Your task to perform on an android device: View the shopping cart on bestbuy. Search for lenovo thinkpad on bestbuy, select the first entry, and add it to the cart. Image 0: 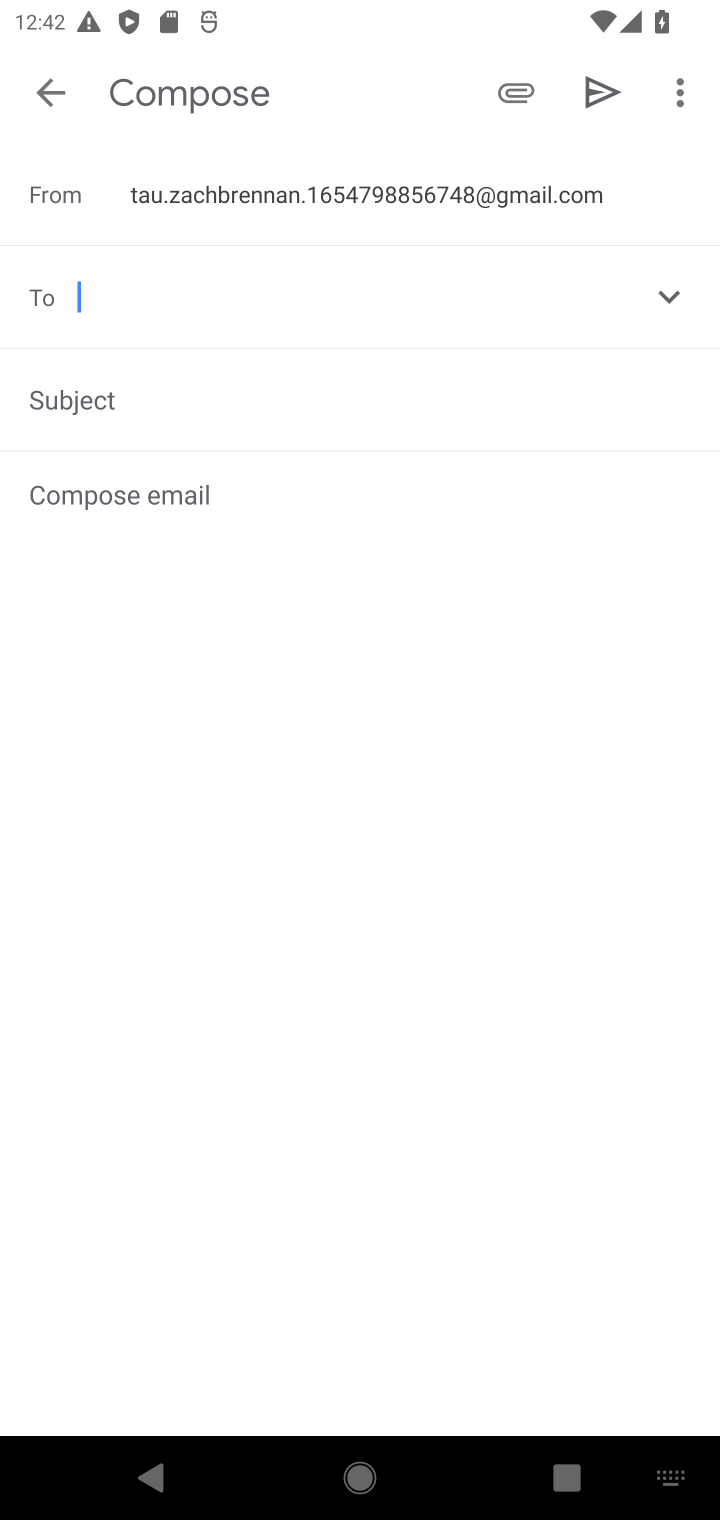
Step 0: press home button
Your task to perform on an android device: View the shopping cart on bestbuy. Search for lenovo thinkpad on bestbuy, select the first entry, and add it to the cart. Image 1: 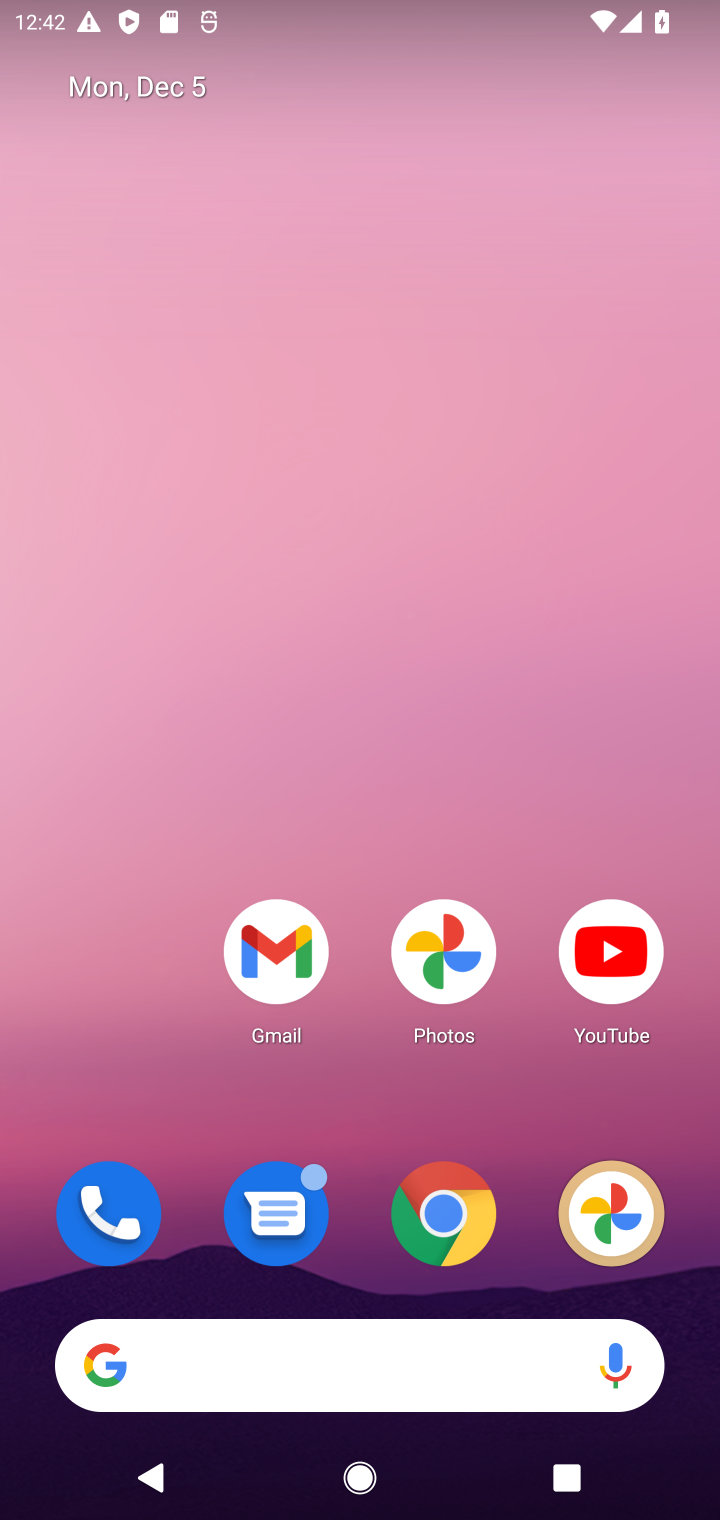
Step 1: click (445, 1209)
Your task to perform on an android device: View the shopping cart on bestbuy. Search for lenovo thinkpad on bestbuy, select the first entry, and add it to the cart. Image 2: 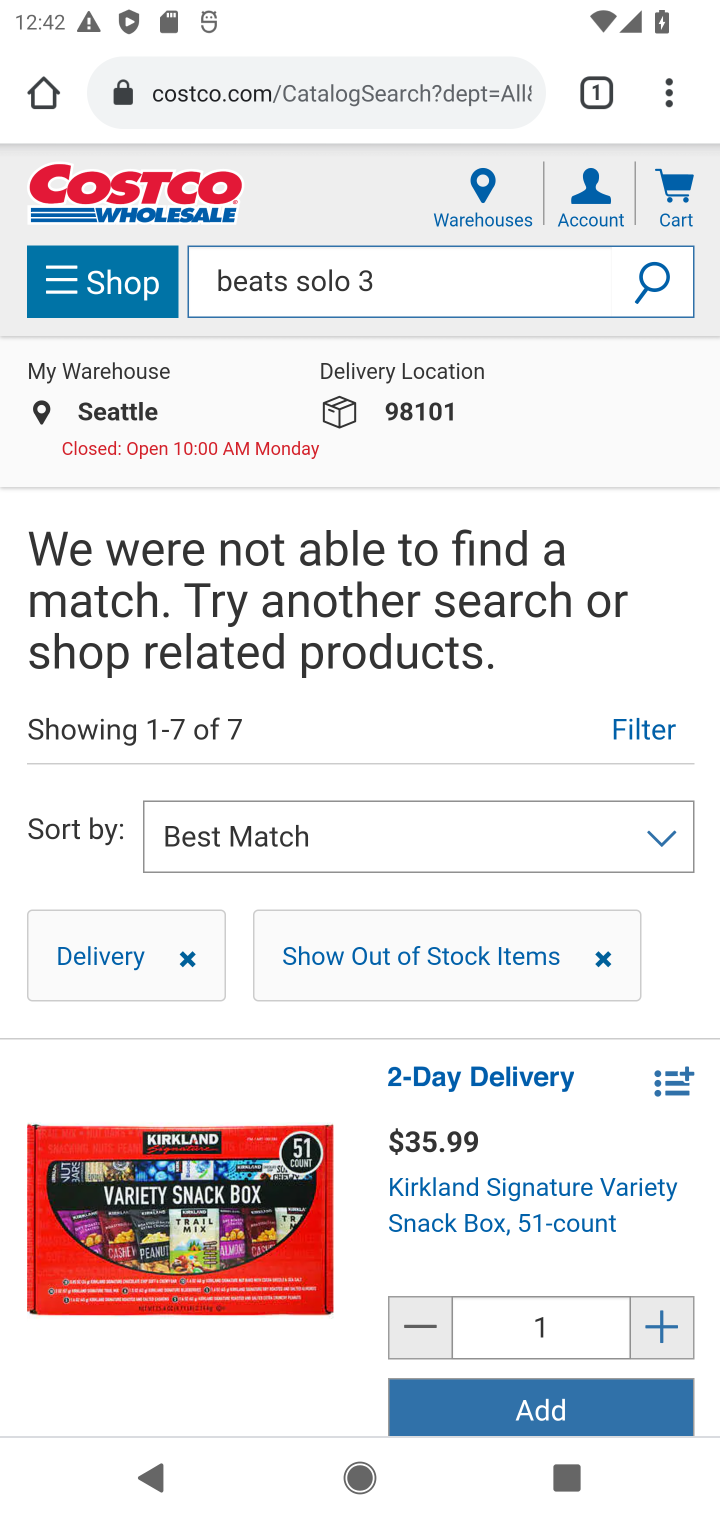
Step 2: click (307, 84)
Your task to perform on an android device: View the shopping cart on bestbuy. Search for lenovo thinkpad on bestbuy, select the first entry, and add it to the cart. Image 3: 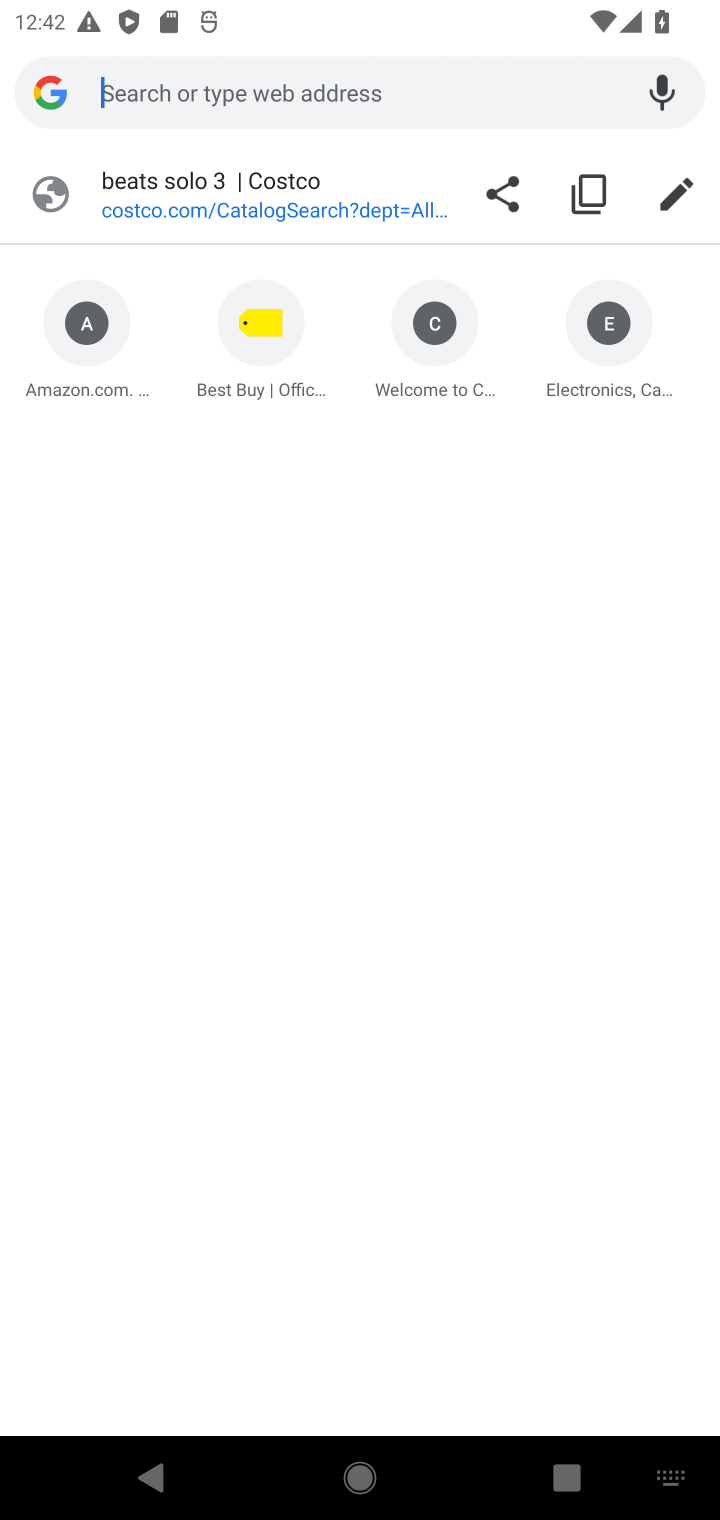
Step 3: click (260, 333)
Your task to perform on an android device: View the shopping cart on bestbuy. Search for lenovo thinkpad on bestbuy, select the first entry, and add it to the cart. Image 4: 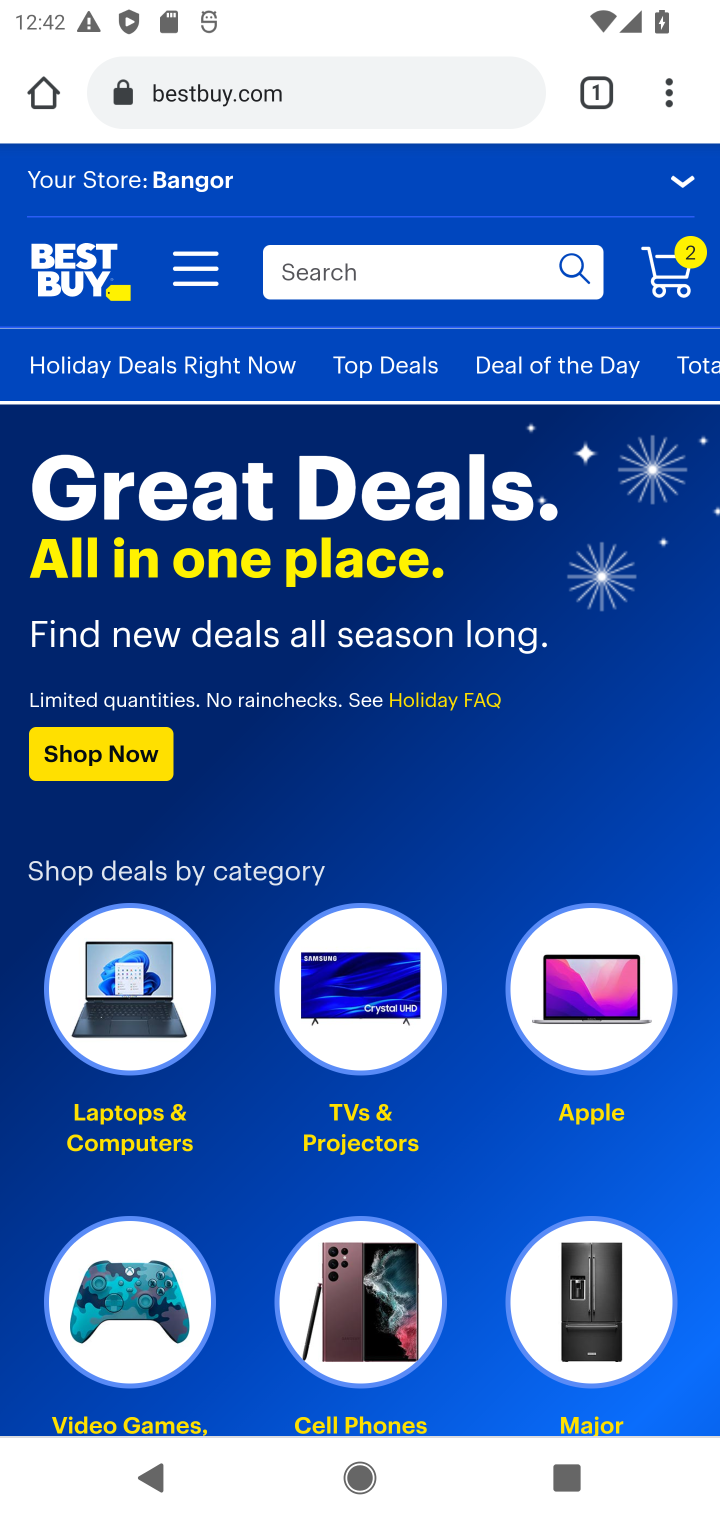
Step 4: click (671, 275)
Your task to perform on an android device: View the shopping cart on bestbuy. Search for lenovo thinkpad on bestbuy, select the first entry, and add it to the cart. Image 5: 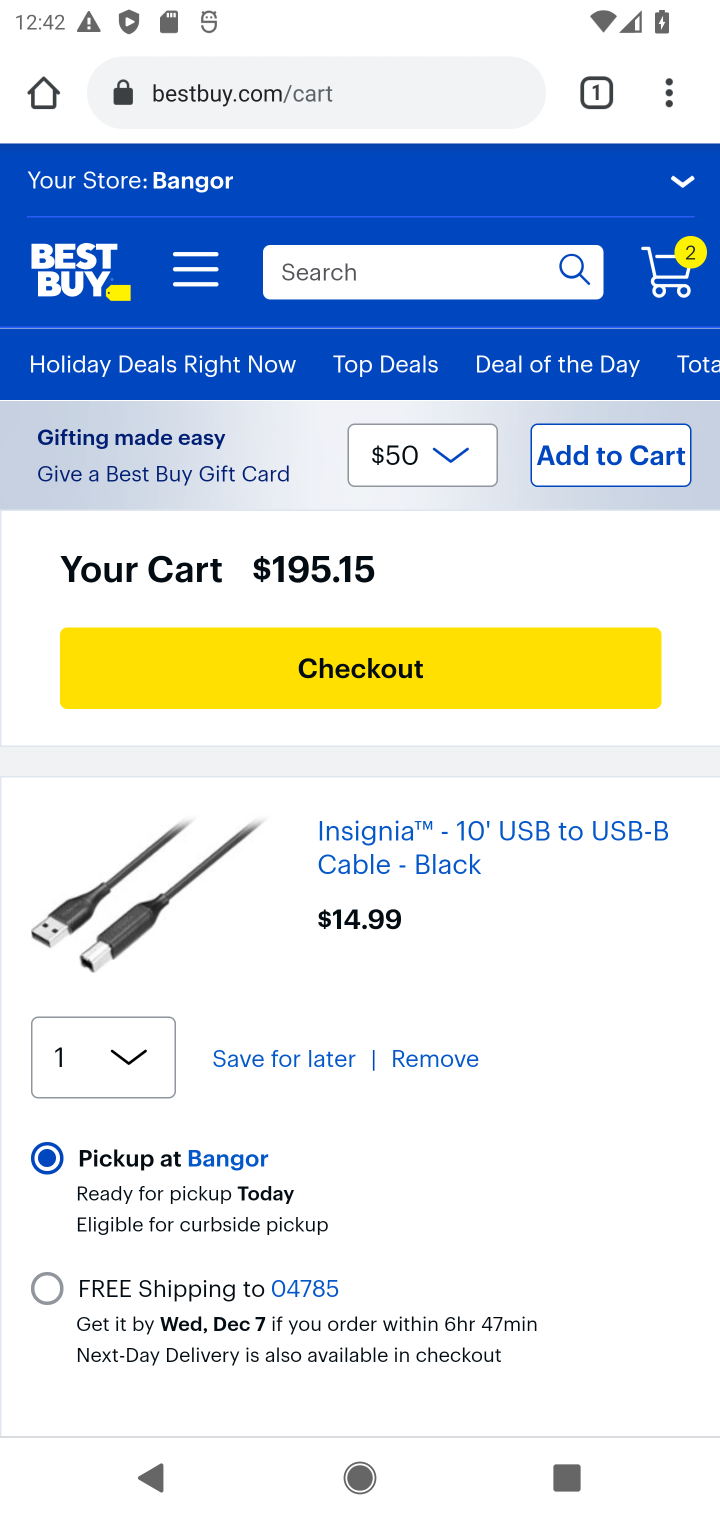
Step 5: drag from (382, 1258) to (394, 910)
Your task to perform on an android device: View the shopping cart on bestbuy. Search for lenovo thinkpad on bestbuy, select the first entry, and add it to the cart. Image 6: 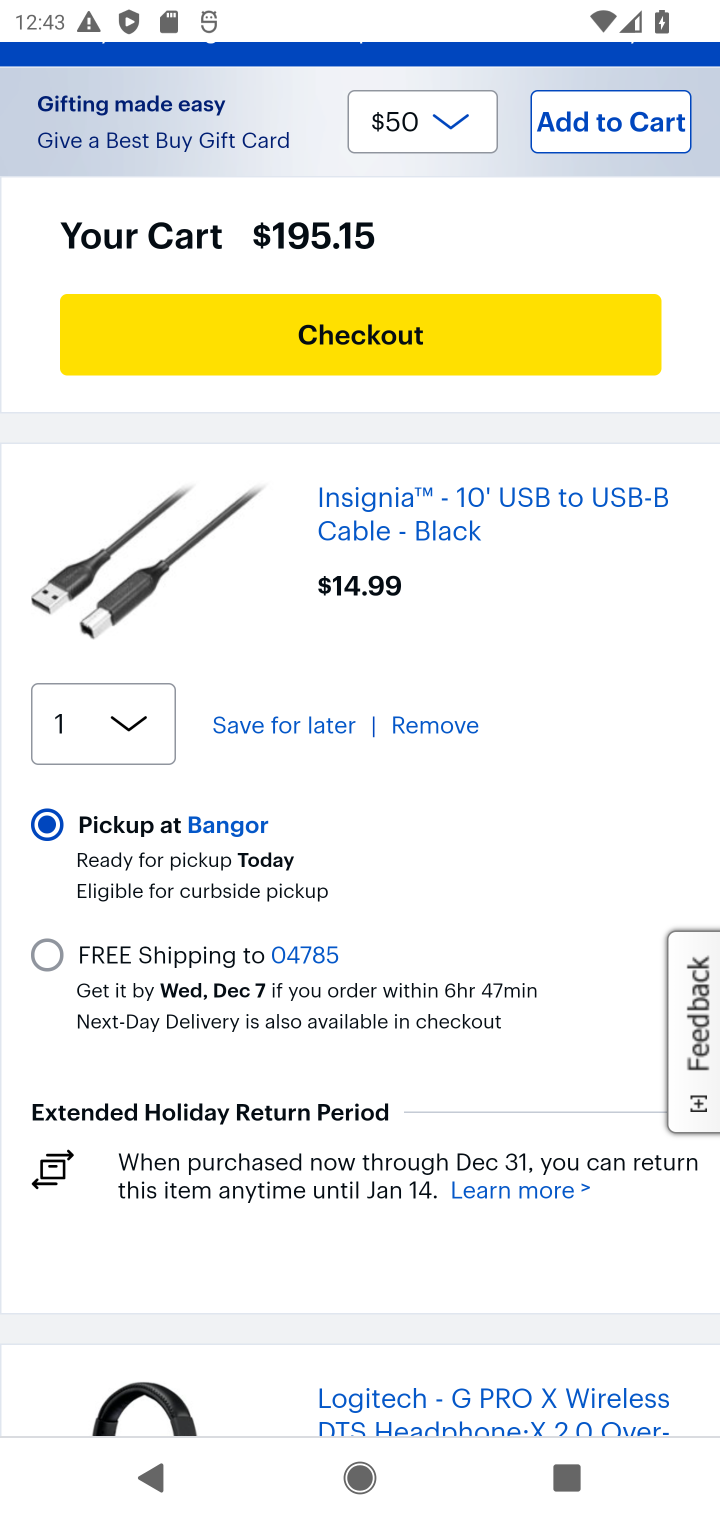
Step 6: drag from (556, 288) to (528, 679)
Your task to perform on an android device: View the shopping cart on bestbuy. Search for lenovo thinkpad on bestbuy, select the first entry, and add it to the cart. Image 7: 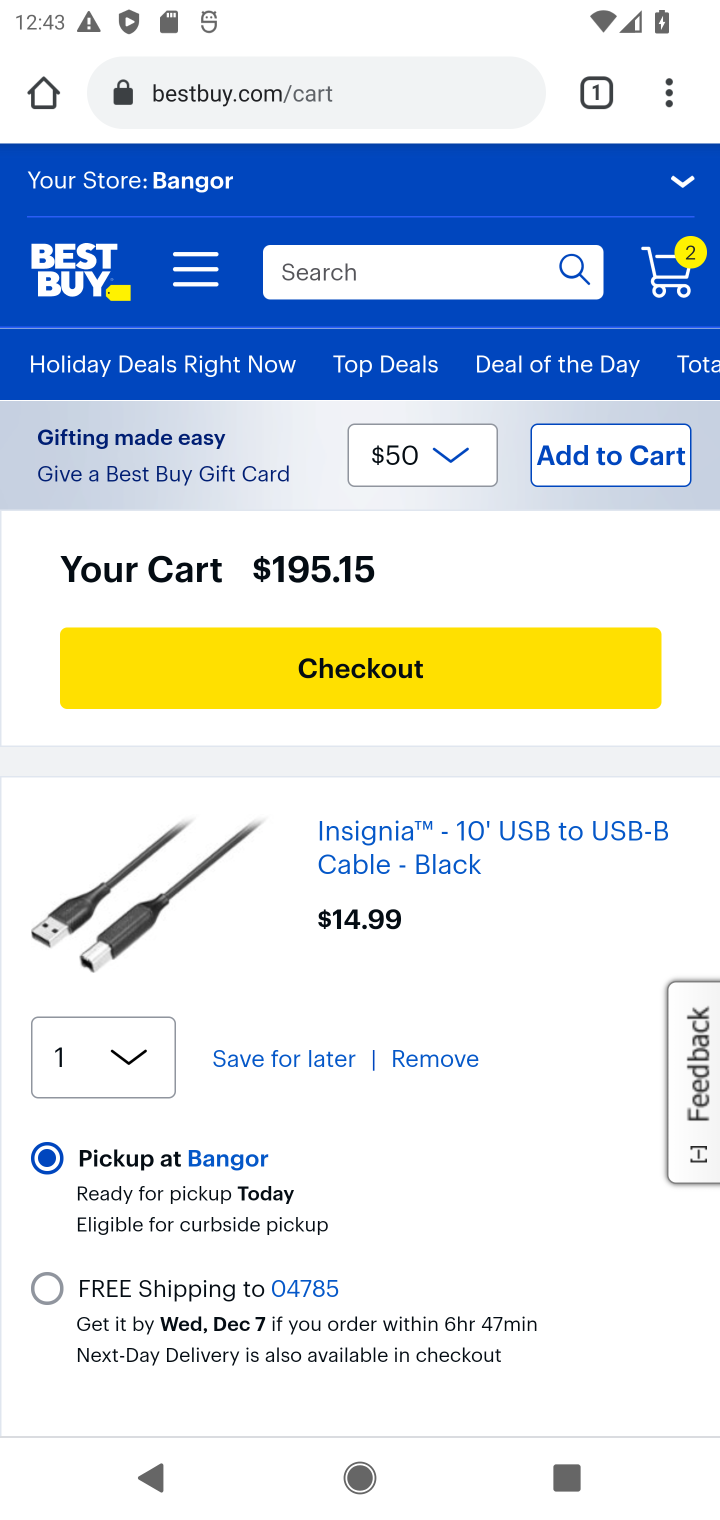
Step 7: click (319, 281)
Your task to perform on an android device: View the shopping cart on bestbuy. Search for lenovo thinkpad on bestbuy, select the first entry, and add it to the cart. Image 8: 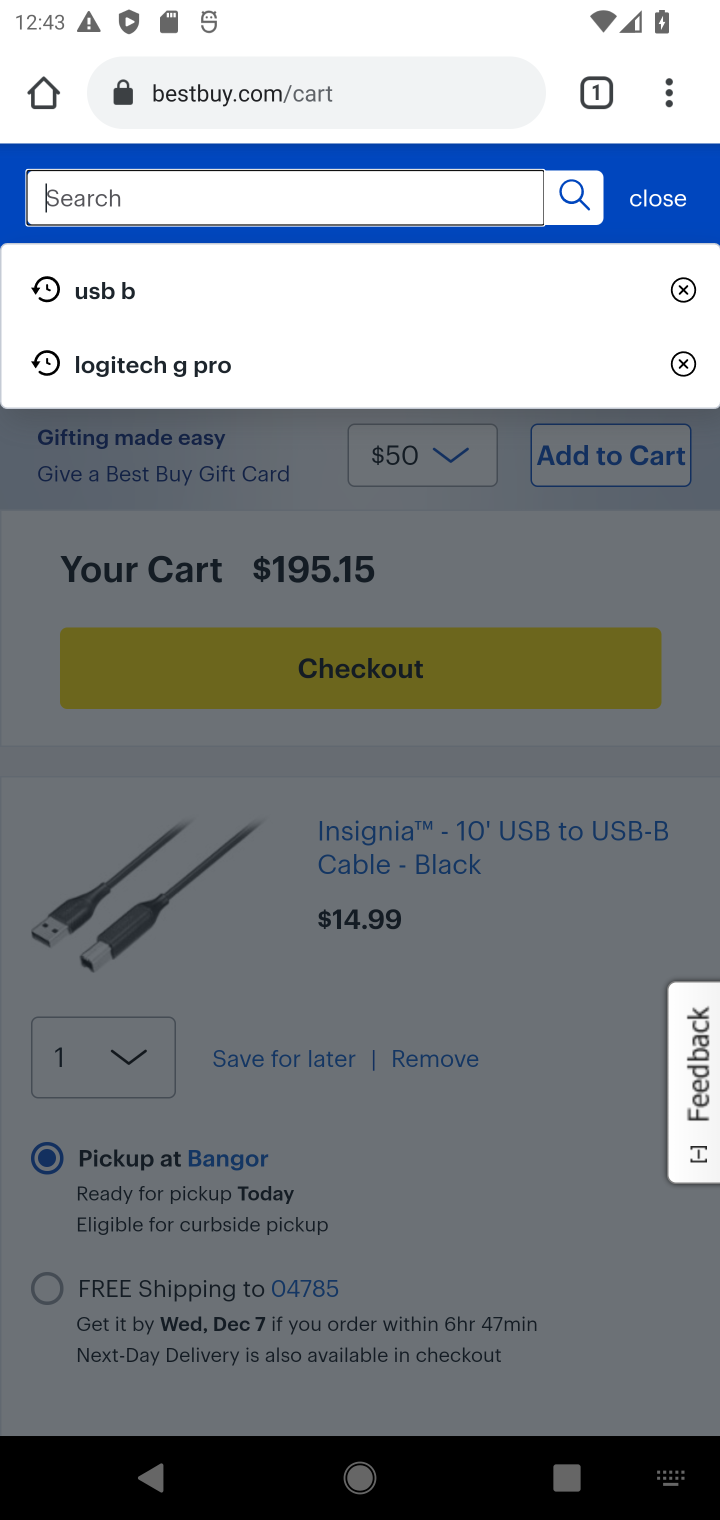
Step 8: type " lenovo thinkpad"
Your task to perform on an android device: View the shopping cart on bestbuy. Search for lenovo thinkpad on bestbuy, select the first entry, and add it to the cart. Image 9: 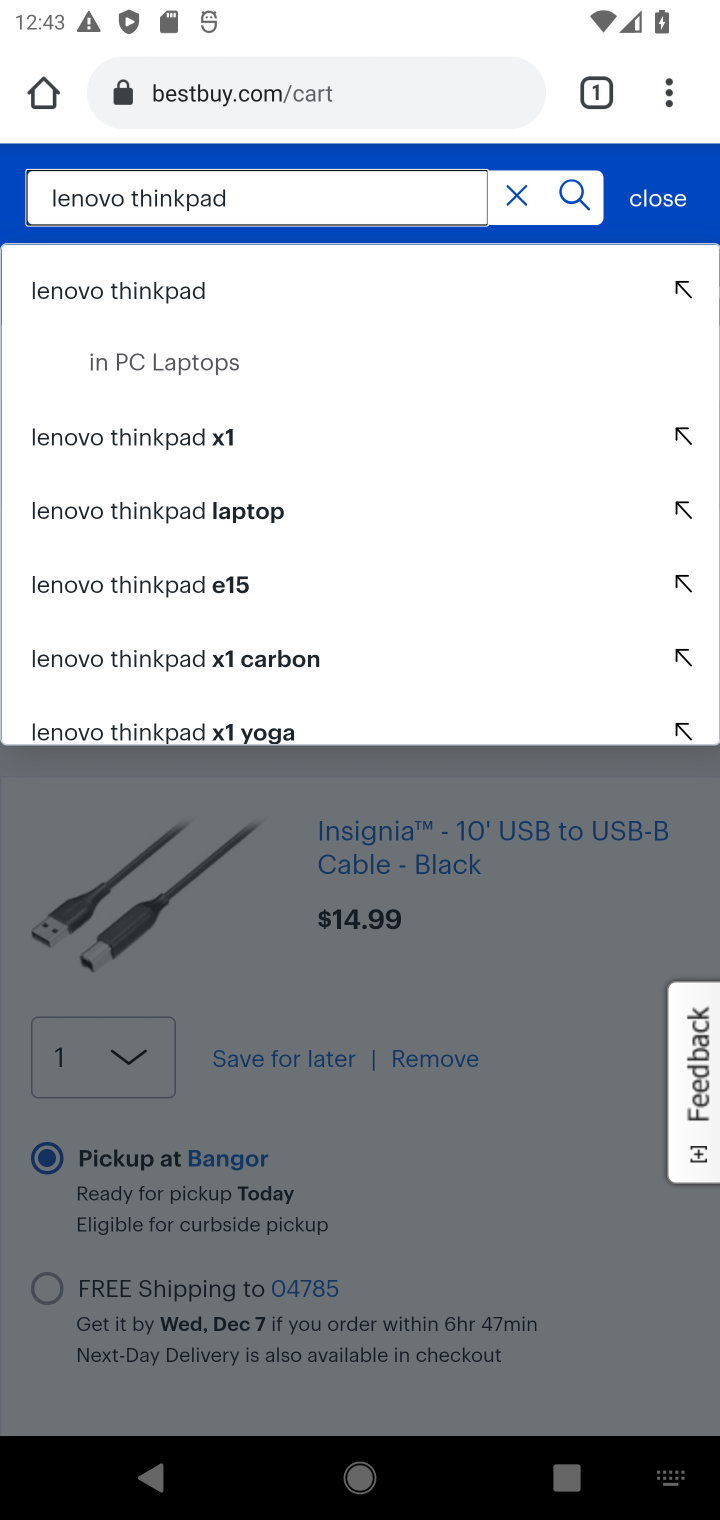
Step 9: click (147, 300)
Your task to perform on an android device: View the shopping cart on bestbuy. Search for lenovo thinkpad on bestbuy, select the first entry, and add it to the cart. Image 10: 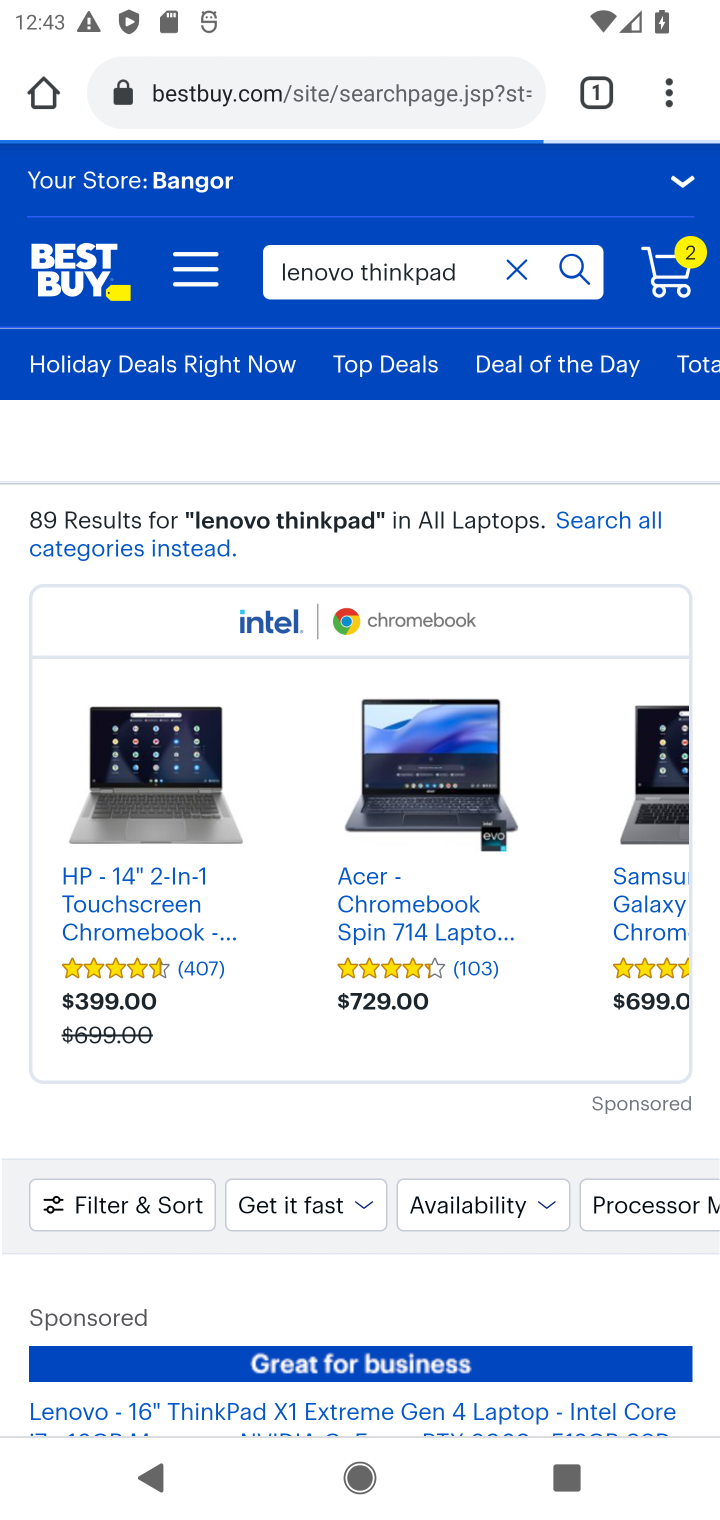
Step 10: drag from (372, 1174) to (317, 707)
Your task to perform on an android device: View the shopping cart on bestbuy. Search for lenovo thinkpad on bestbuy, select the first entry, and add it to the cart. Image 11: 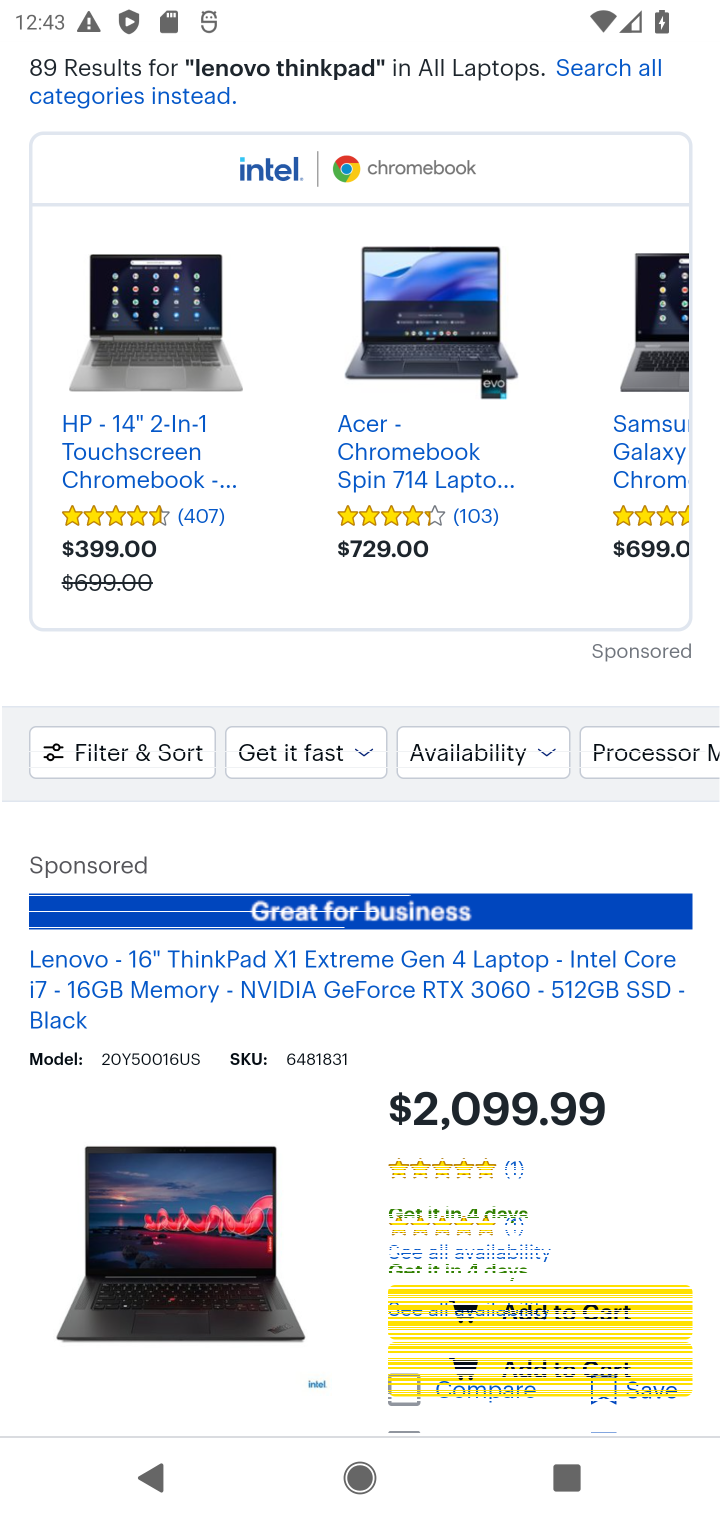
Step 11: drag from (317, 992) to (326, 601)
Your task to perform on an android device: View the shopping cart on bestbuy. Search for lenovo thinkpad on bestbuy, select the first entry, and add it to the cart. Image 12: 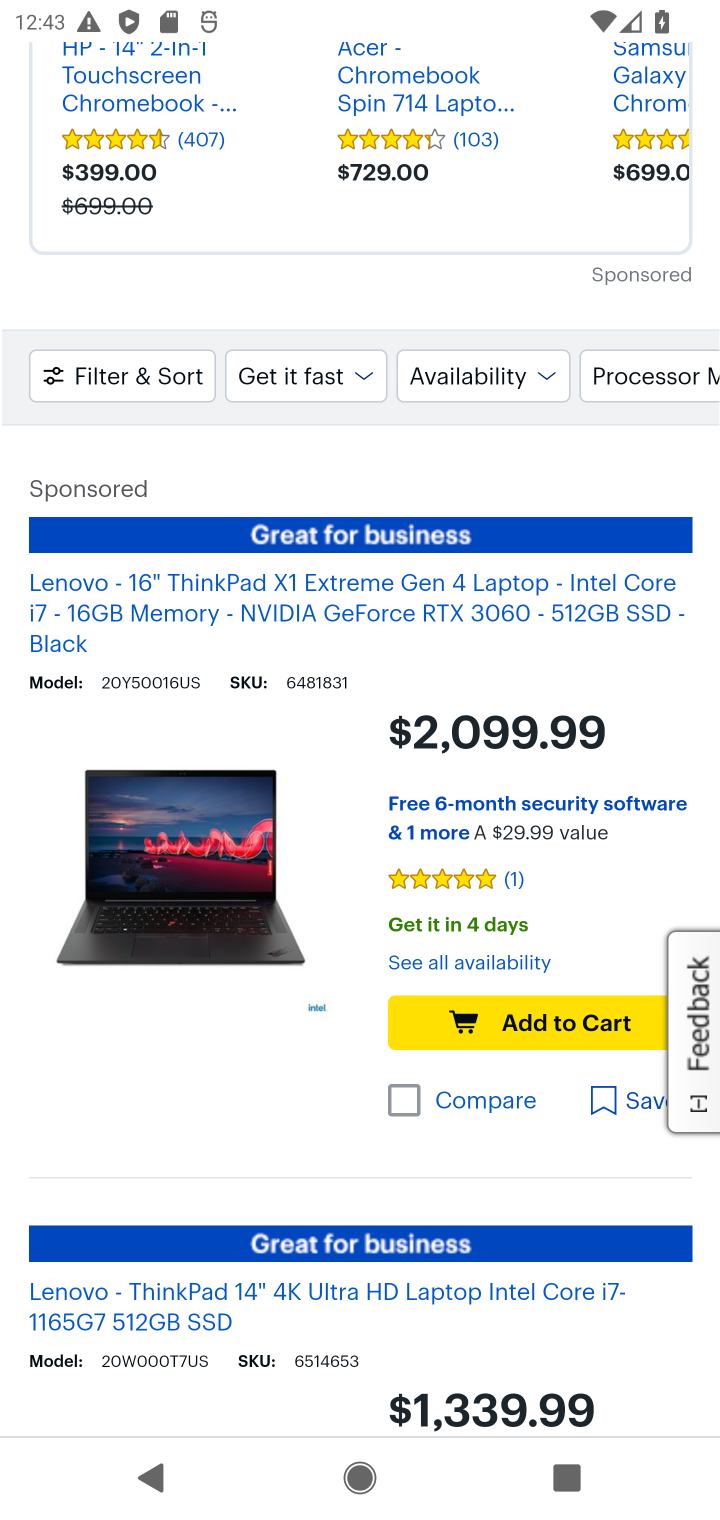
Step 12: click (515, 1032)
Your task to perform on an android device: View the shopping cart on bestbuy. Search for lenovo thinkpad on bestbuy, select the first entry, and add it to the cart. Image 13: 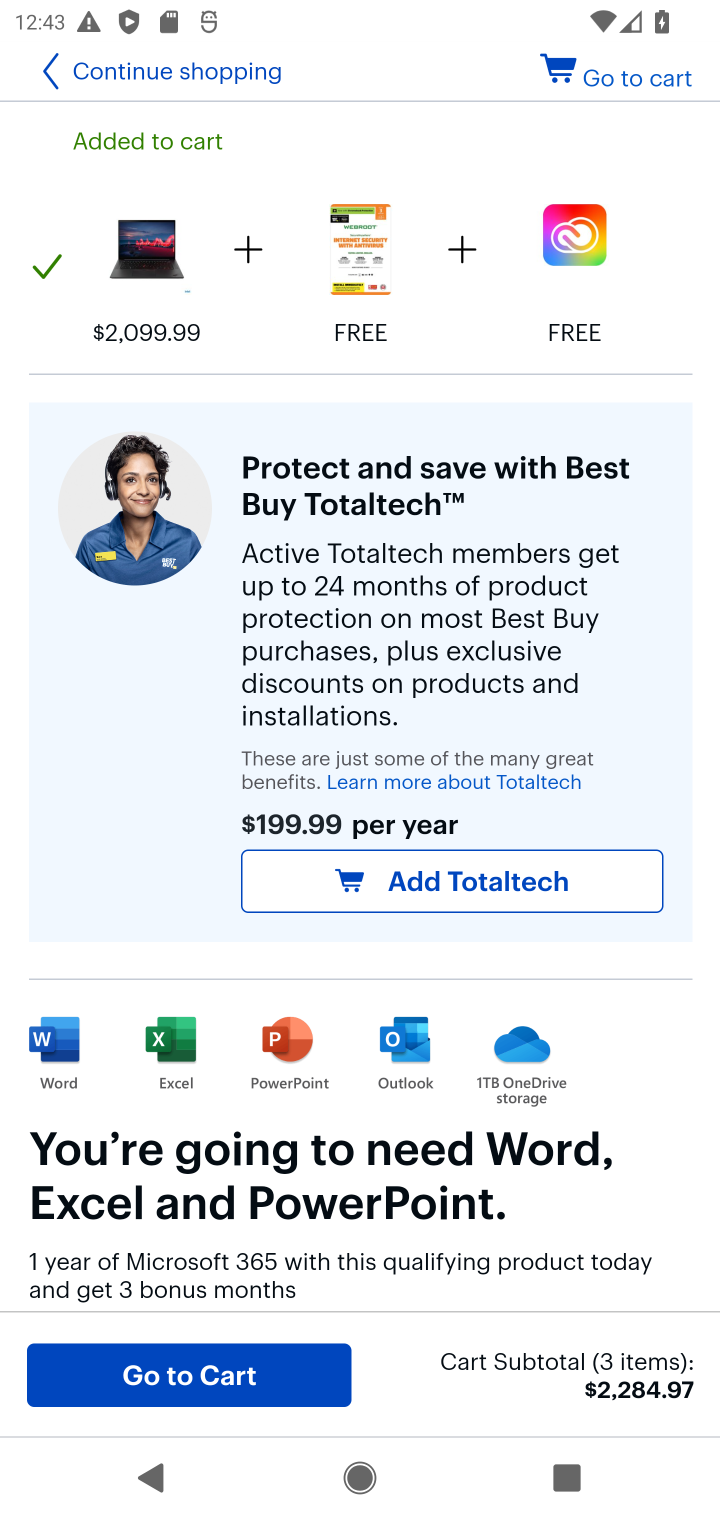
Step 13: task complete